Your task to perform on an android device: change the upload size in google photos Image 0: 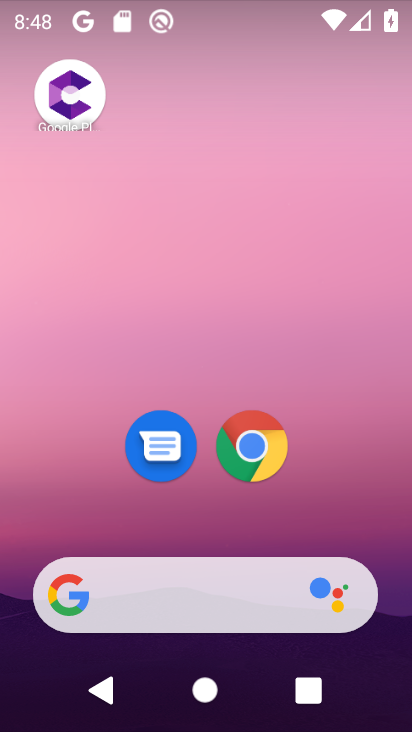
Step 0: drag from (347, 501) to (335, 66)
Your task to perform on an android device: change the upload size in google photos Image 1: 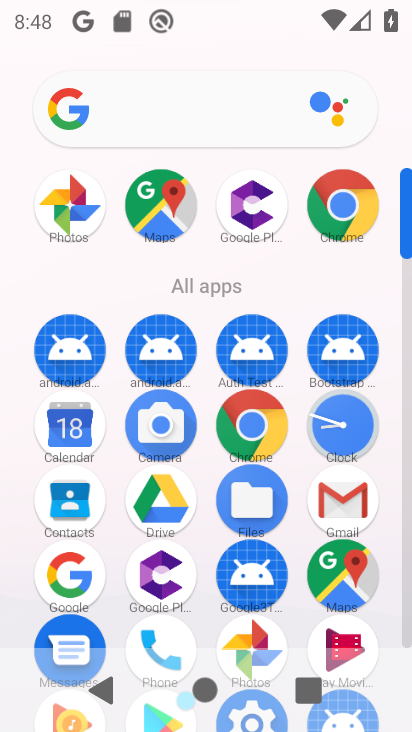
Step 1: drag from (389, 421) to (389, 181)
Your task to perform on an android device: change the upload size in google photos Image 2: 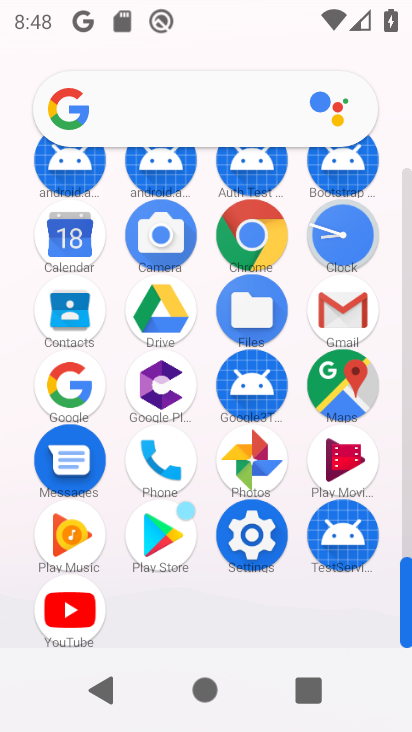
Step 2: click (257, 469)
Your task to perform on an android device: change the upload size in google photos Image 3: 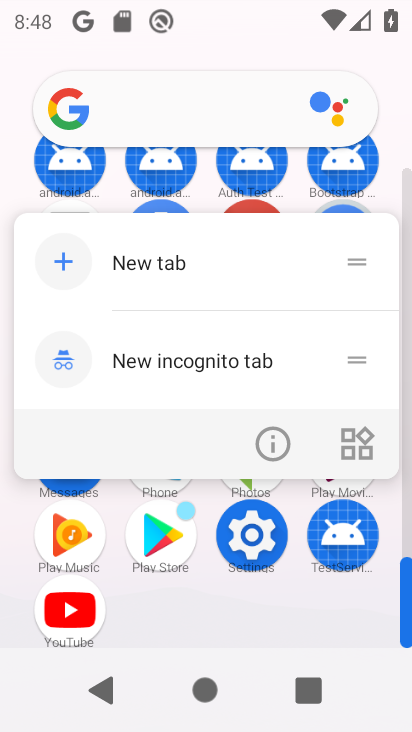
Step 3: click (264, 488)
Your task to perform on an android device: change the upload size in google photos Image 4: 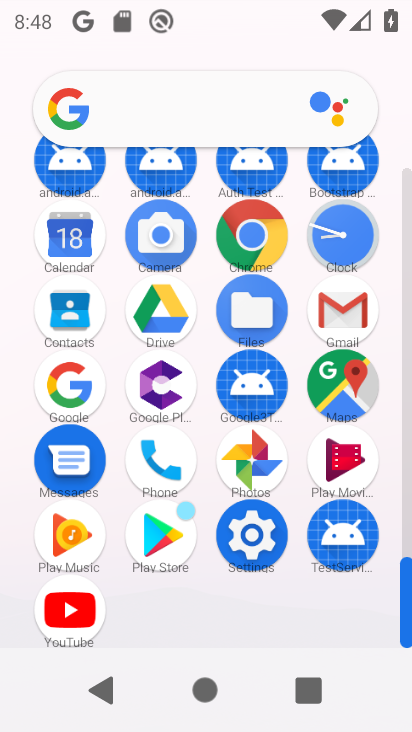
Step 4: click (262, 464)
Your task to perform on an android device: change the upload size in google photos Image 5: 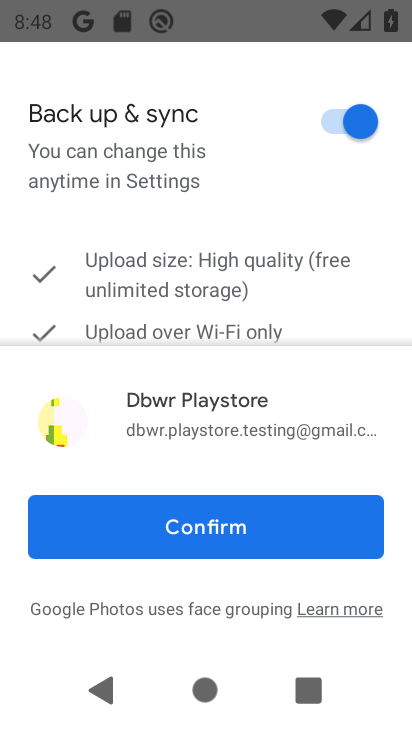
Step 5: click (261, 524)
Your task to perform on an android device: change the upload size in google photos Image 6: 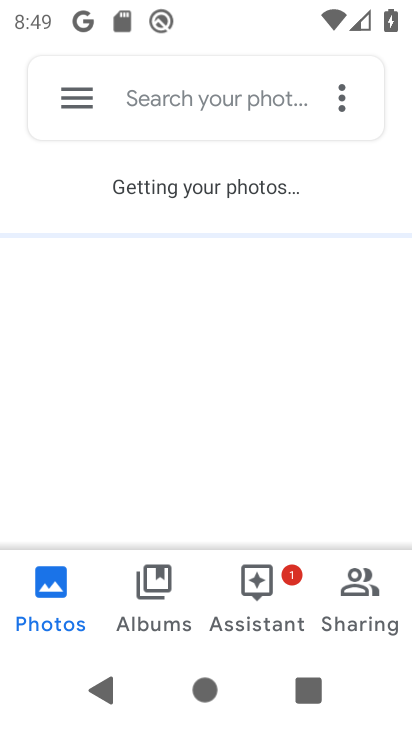
Step 6: click (81, 99)
Your task to perform on an android device: change the upload size in google photos Image 7: 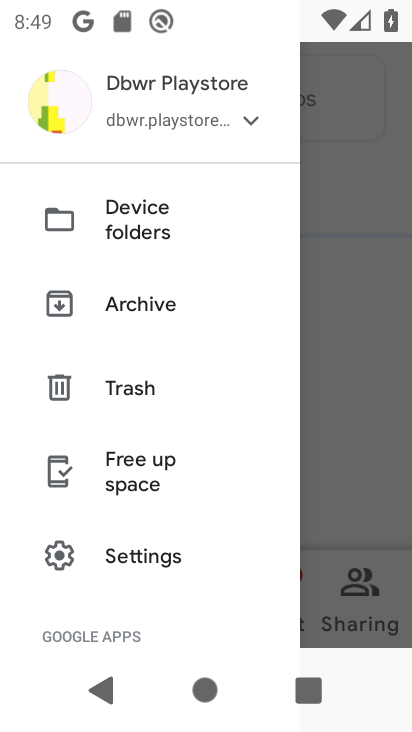
Step 7: click (179, 553)
Your task to perform on an android device: change the upload size in google photos Image 8: 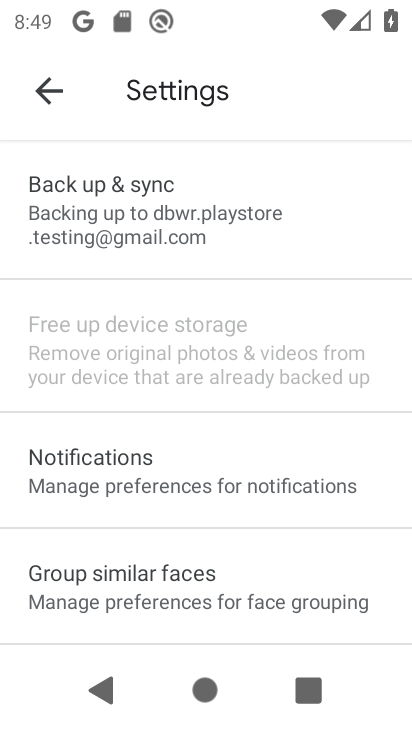
Step 8: click (203, 222)
Your task to perform on an android device: change the upload size in google photos Image 9: 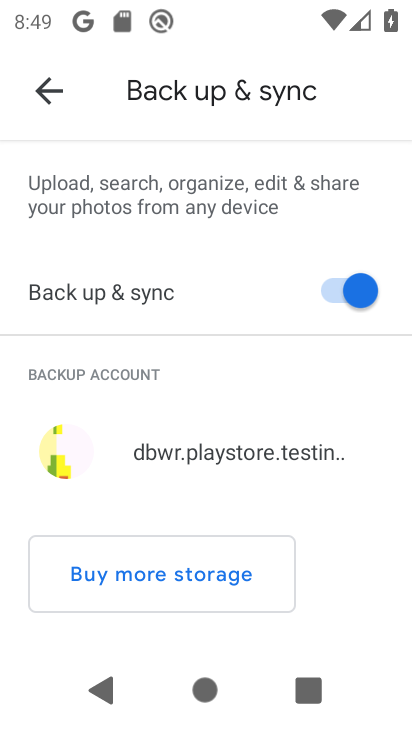
Step 9: drag from (367, 583) to (368, 388)
Your task to perform on an android device: change the upload size in google photos Image 10: 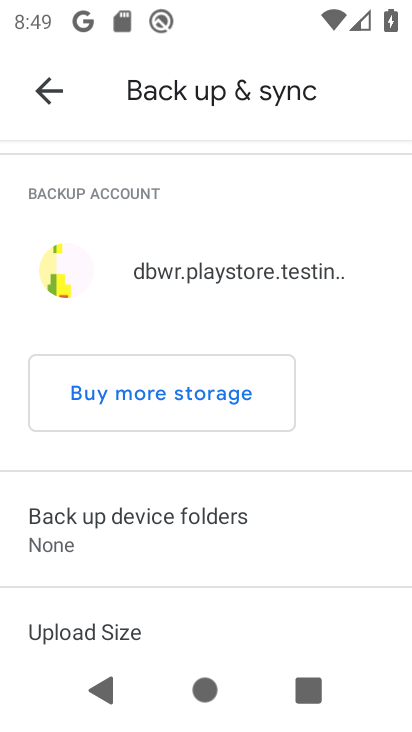
Step 10: drag from (372, 545) to (369, 337)
Your task to perform on an android device: change the upload size in google photos Image 11: 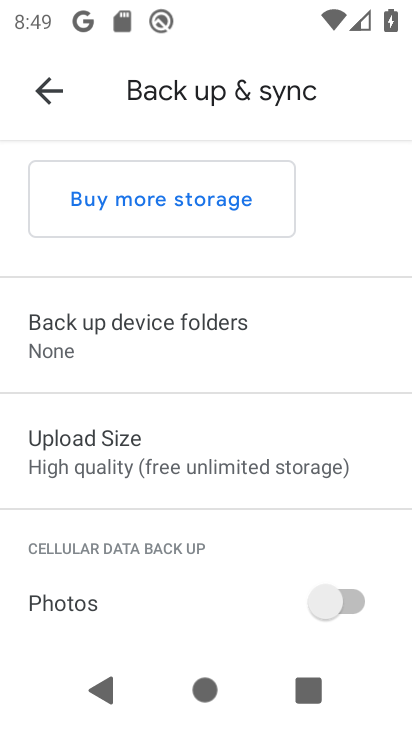
Step 11: click (285, 465)
Your task to perform on an android device: change the upload size in google photos Image 12: 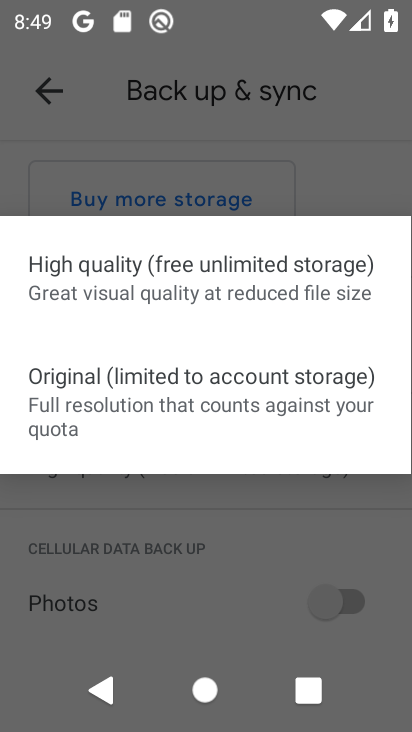
Step 12: click (165, 388)
Your task to perform on an android device: change the upload size in google photos Image 13: 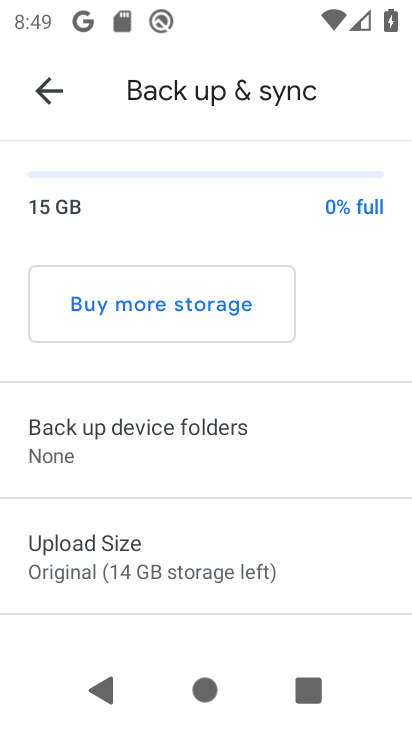
Step 13: task complete